Your task to perform on an android device: Turn on the flashlight Image 0: 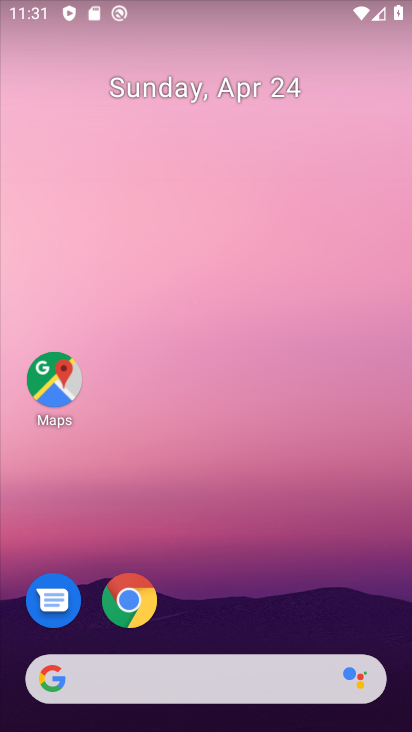
Step 0: drag from (229, 24) to (220, 428)
Your task to perform on an android device: Turn on the flashlight Image 1: 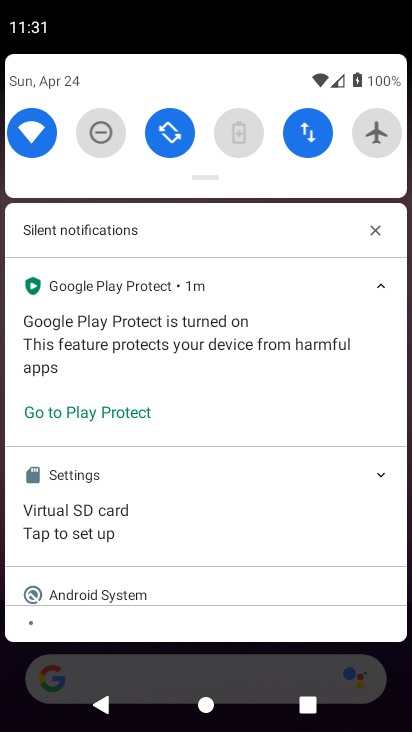
Step 1: task complete